Your task to perform on an android device: When is my next meeting? Image 0: 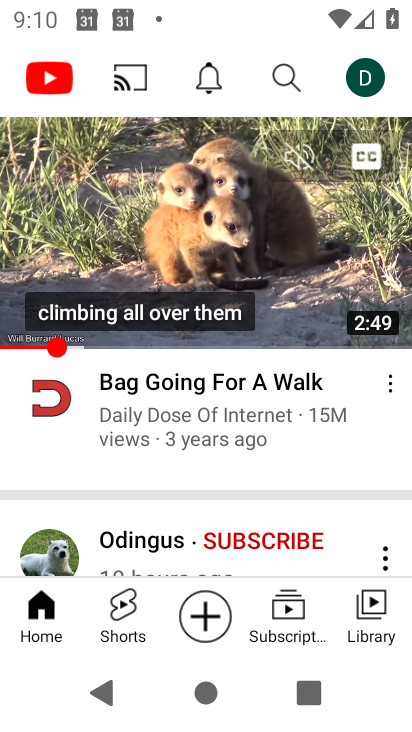
Step 0: press home button
Your task to perform on an android device: When is my next meeting? Image 1: 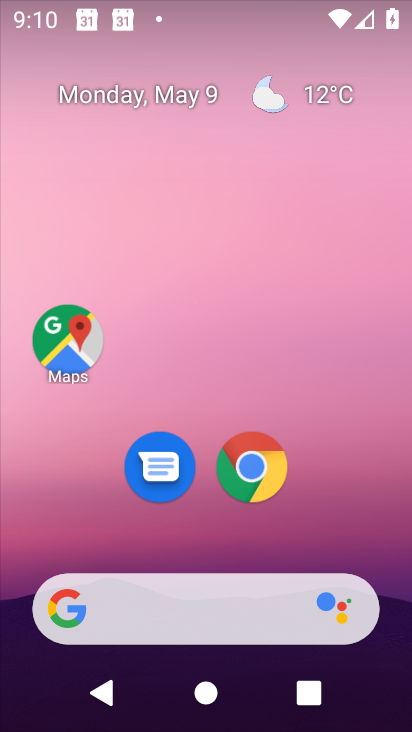
Step 1: drag from (353, 544) to (372, 6)
Your task to perform on an android device: When is my next meeting? Image 2: 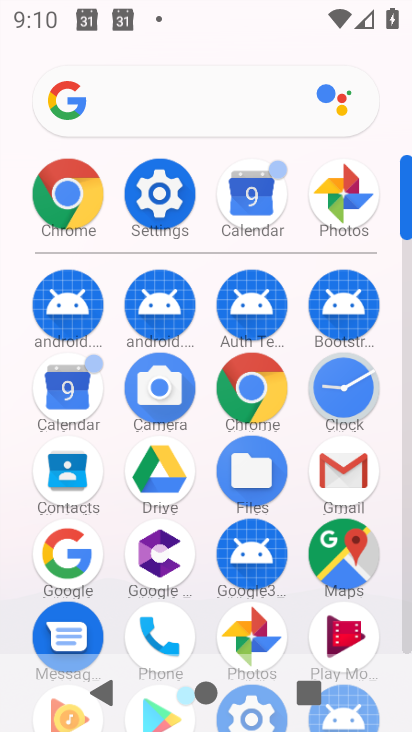
Step 2: click (253, 198)
Your task to perform on an android device: When is my next meeting? Image 3: 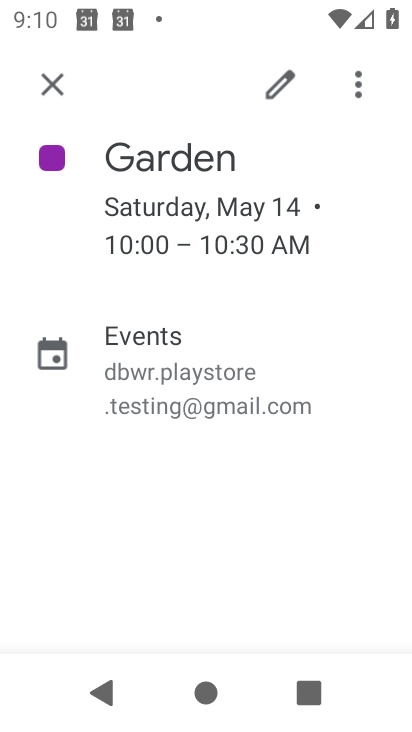
Step 3: click (63, 89)
Your task to perform on an android device: When is my next meeting? Image 4: 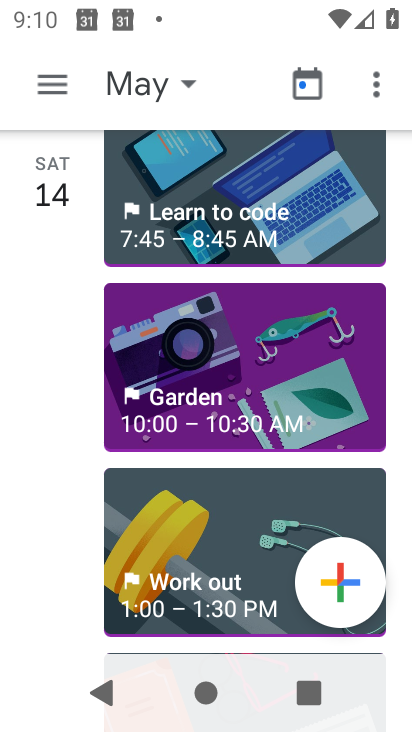
Step 4: drag from (168, 313) to (168, 625)
Your task to perform on an android device: When is my next meeting? Image 5: 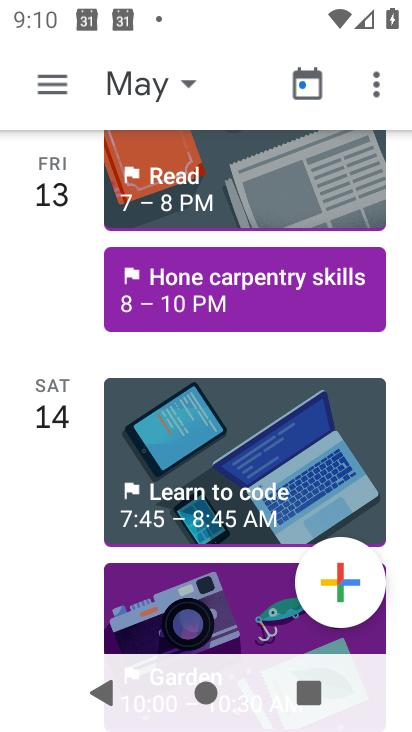
Step 5: drag from (194, 220) to (192, 598)
Your task to perform on an android device: When is my next meeting? Image 6: 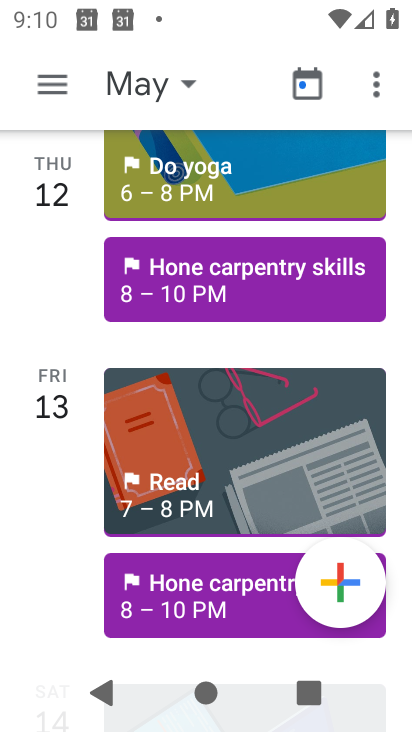
Step 6: drag from (181, 268) to (196, 632)
Your task to perform on an android device: When is my next meeting? Image 7: 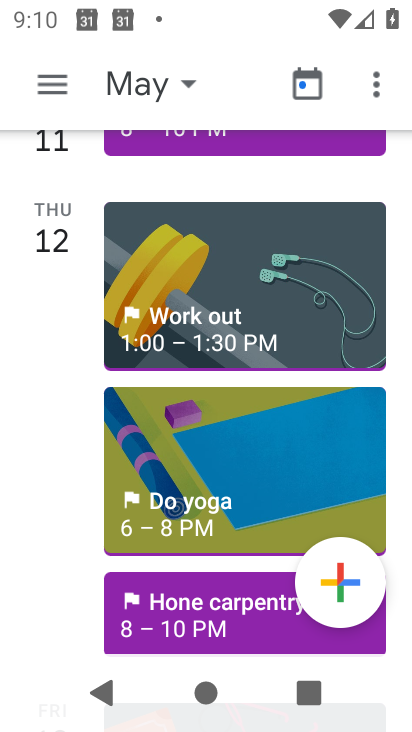
Step 7: drag from (206, 305) to (214, 644)
Your task to perform on an android device: When is my next meeting? Image 8: 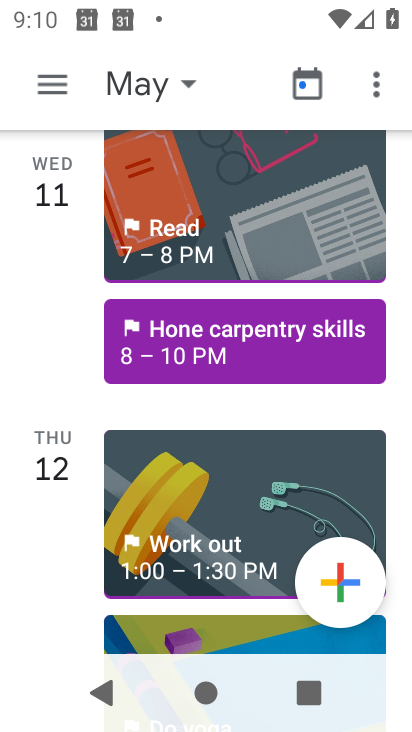
Step 8: drag from (214, 276) to (221, 663)
Your task to perform on an android device: When is my next meeting? Image 9: 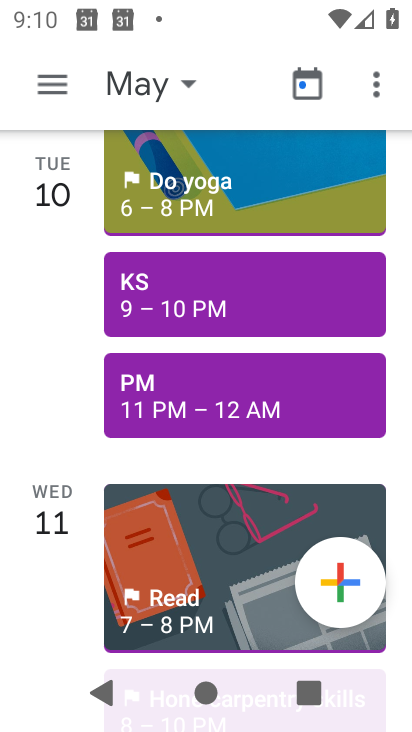
Step 9: drag from (187, 348) to (187, 587)
Your task to perform on an android device: When is my next meeting? Image 10: 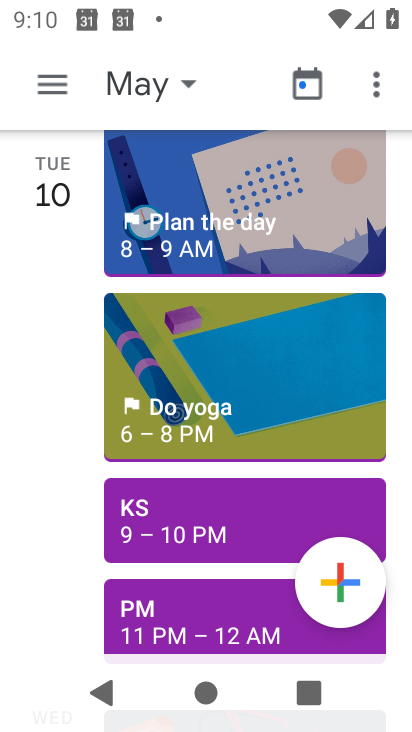
Step 10: drag from (196, 214) to (174, 630)
Your task to perform on an android device: When is my next meeting? Image 11: 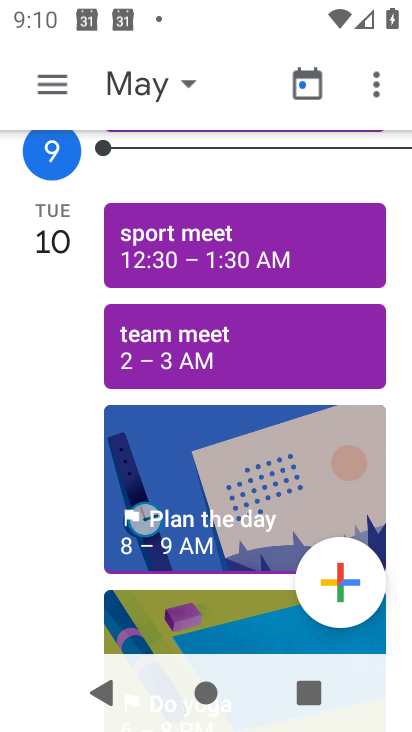
Step 11: click (211, 233)
Your task to perform on an android device: When is my next meeting? Image 12: 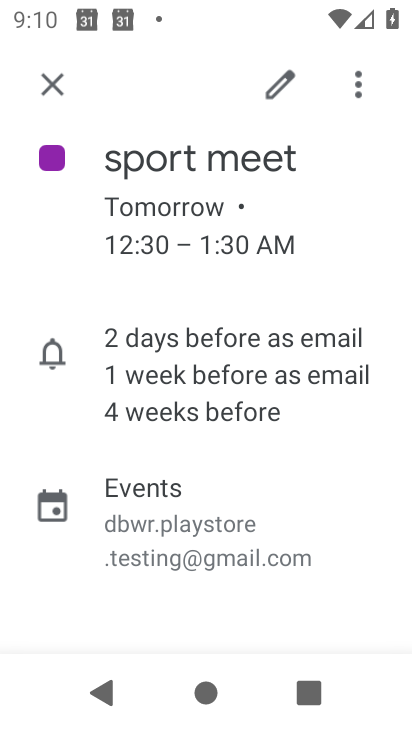
Step 12: task complete